Your task to perform on an android device: Toggle the flashlight Image 0: 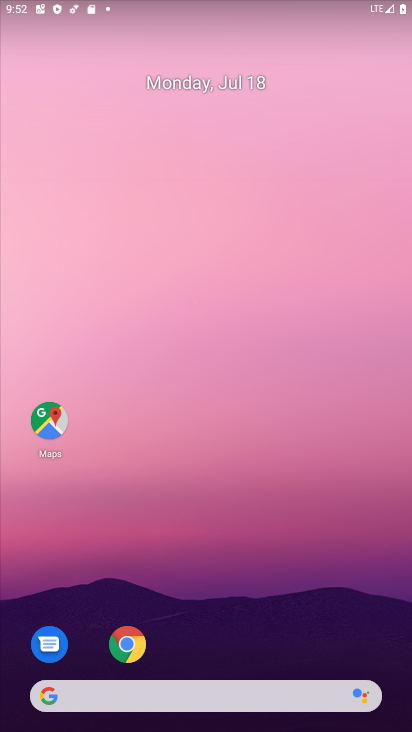
Step 0: drag from (290, 5) to (294, 300)
Your task to perform on an android device: Toggle the flashlight Image 1: 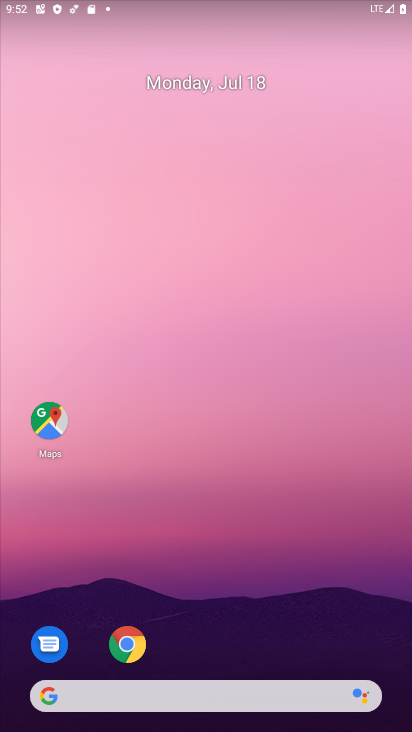
Step 1: task complete